Your task to perform on an android device: install app "Google Calendar" Image 0: 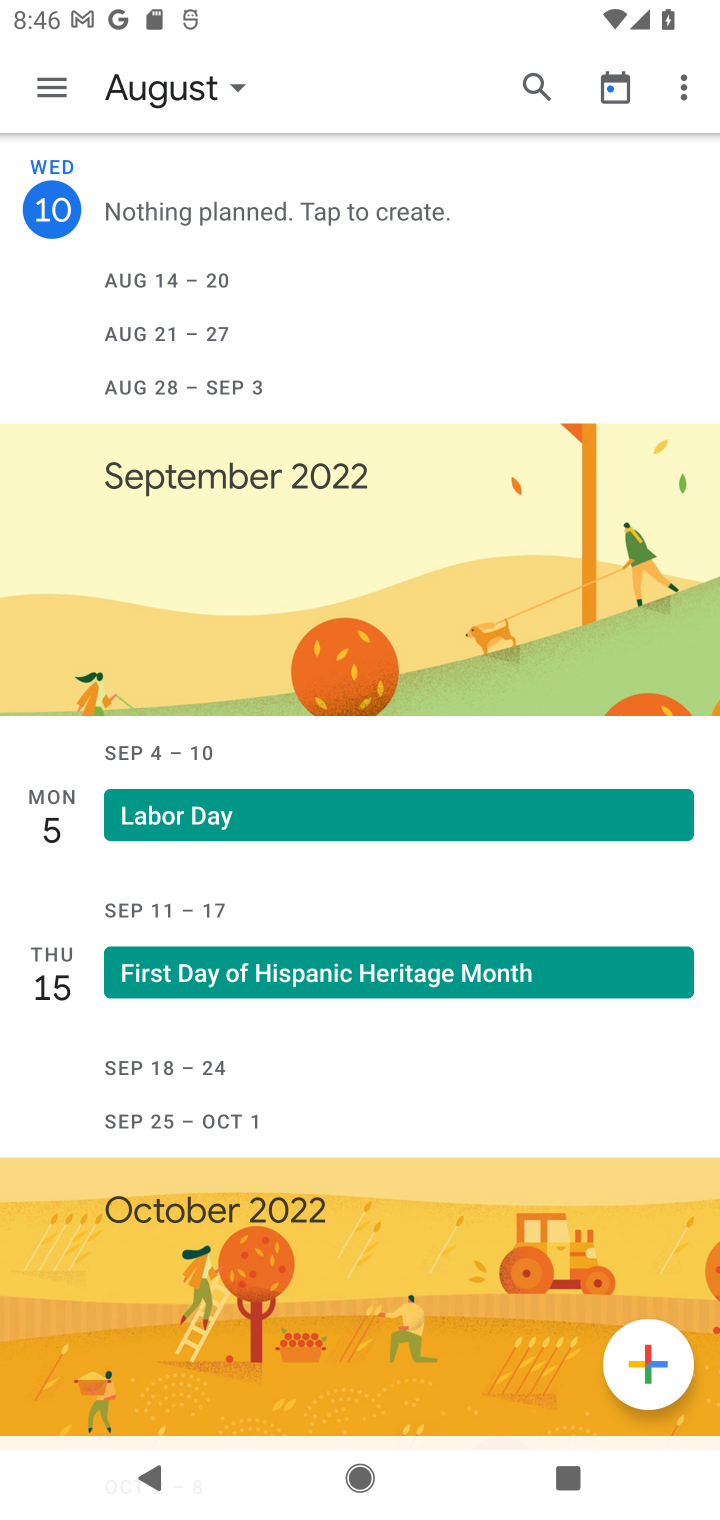
Step 0: press home button
Your task to perform on an android device: install app "Google Calendar" Image 1: 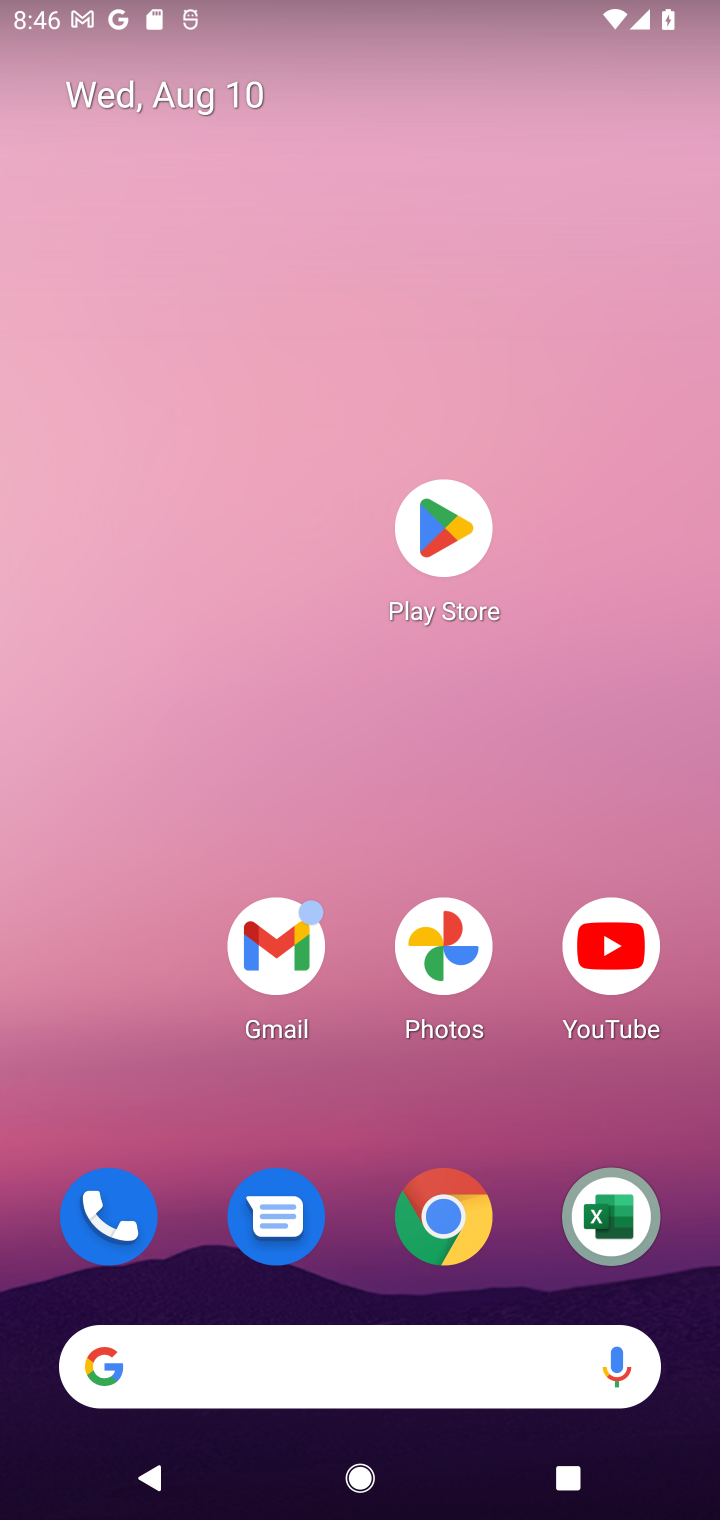
Step 1: click (439, 535)
Your task to perform on an android device: install app "Google Calendar" Image 2: 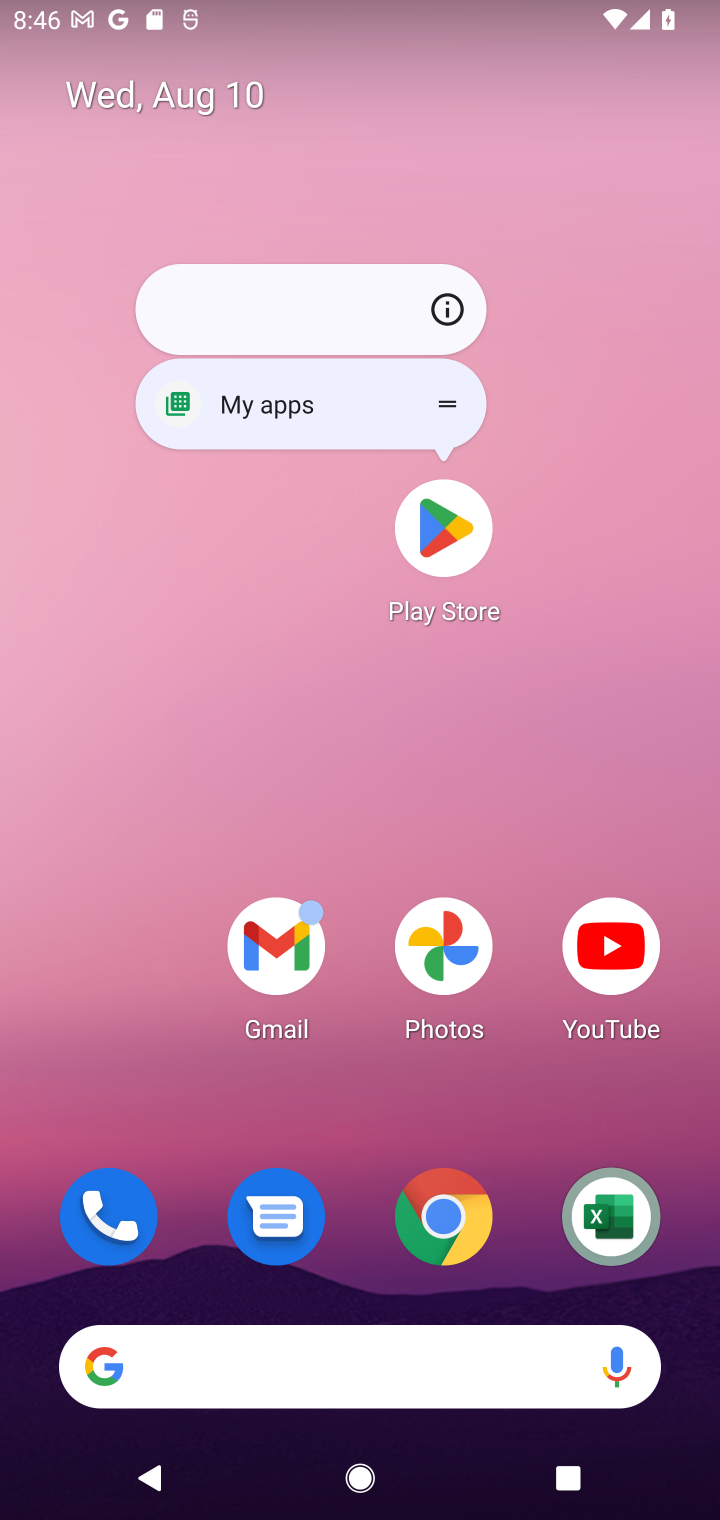
Step 2: click (439, 537)
Your task to perform on an android device: install app "Google Calendar" Image 3: 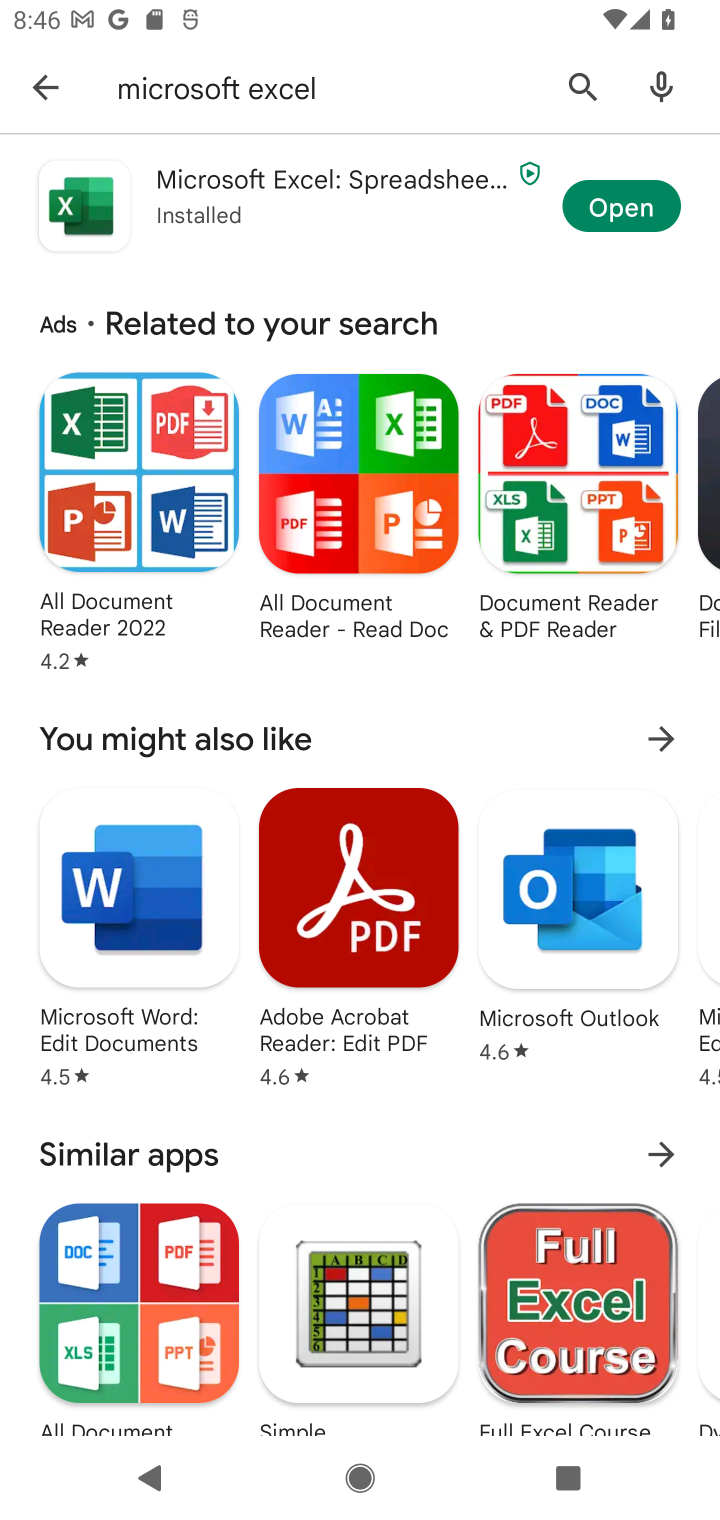
Step 3: click (570, 86)
Your task to perform on an android device: install app "Google Calendar" Image 4: 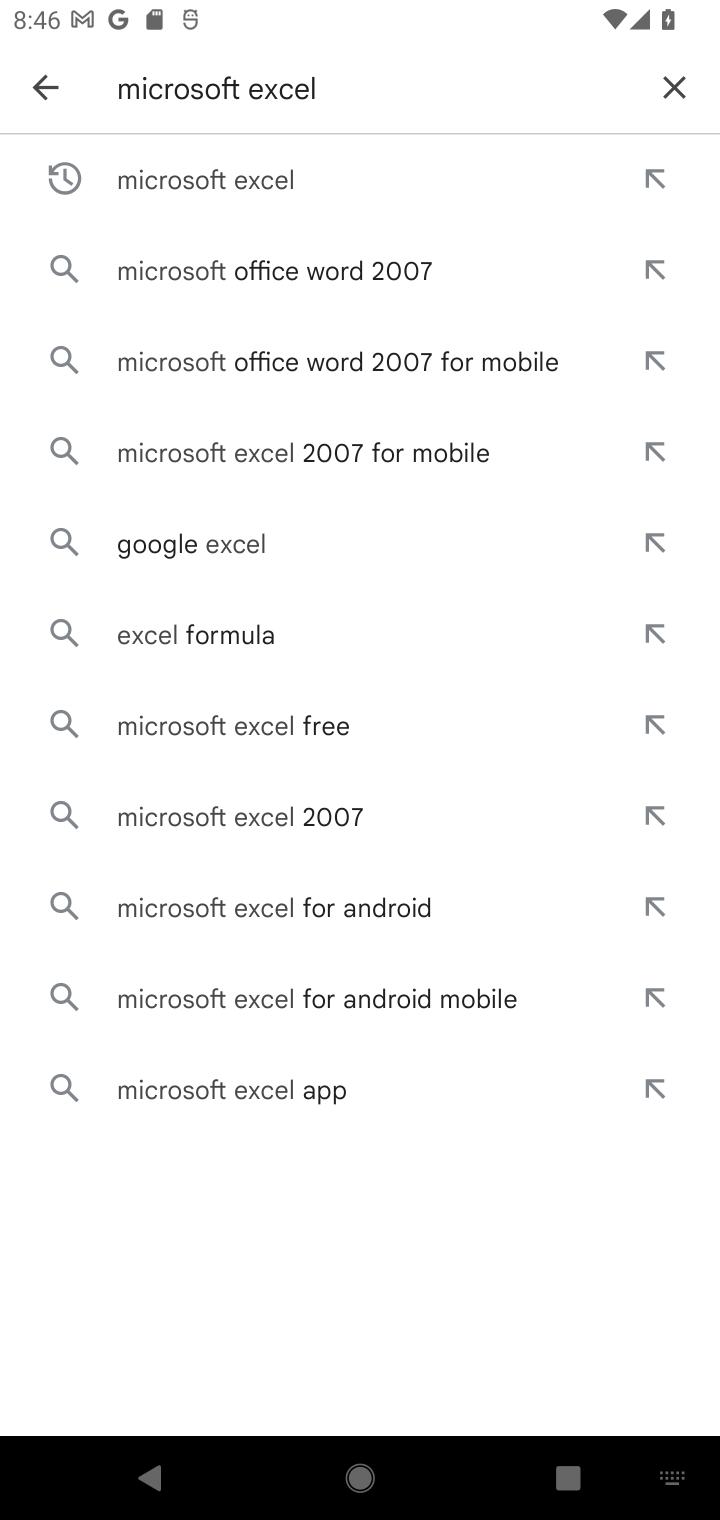
Step 4: click (670, 57)
Your task to perform on an android device: install app "Google Calendar" Image 5: 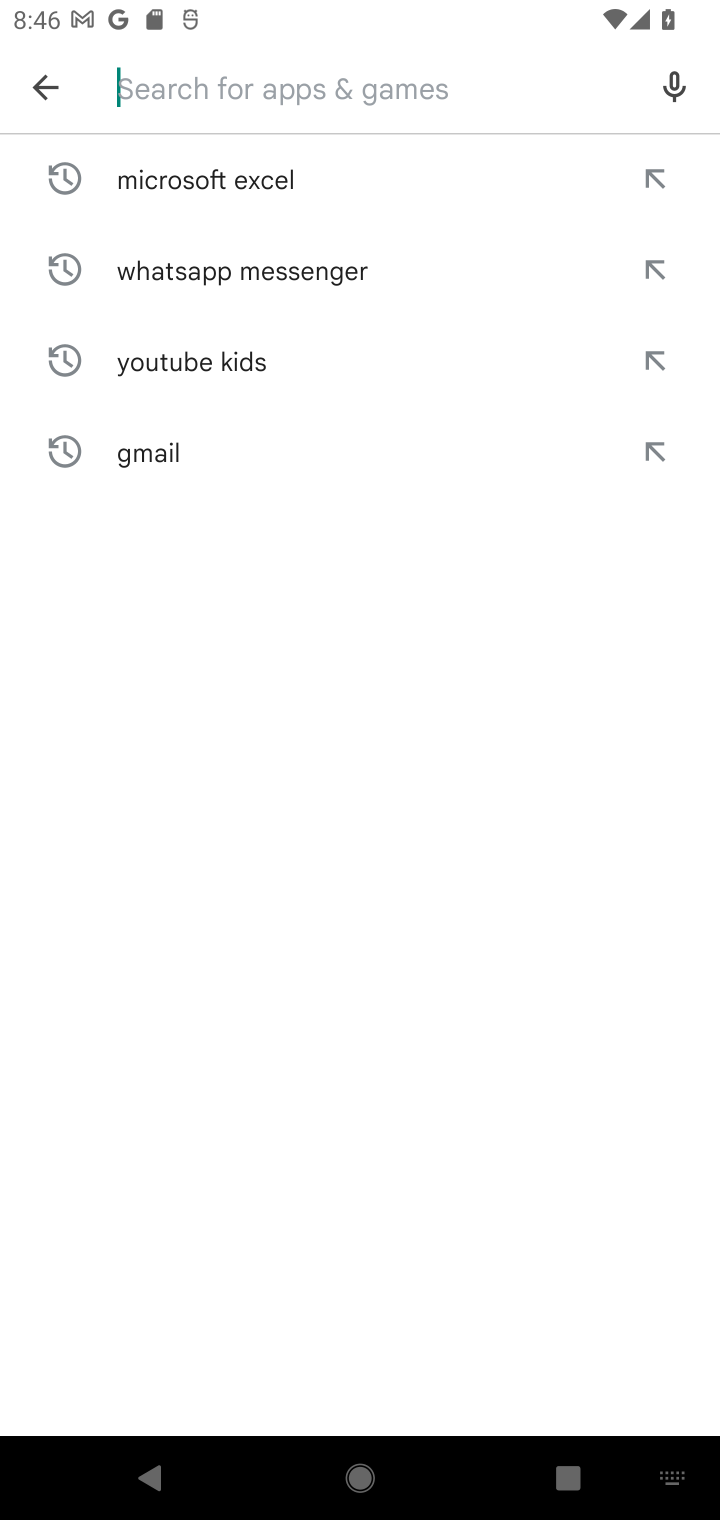
Step 5: type "Google Calendar"
Your task to perform on an android device: install app "Google Calendar" Image 6: 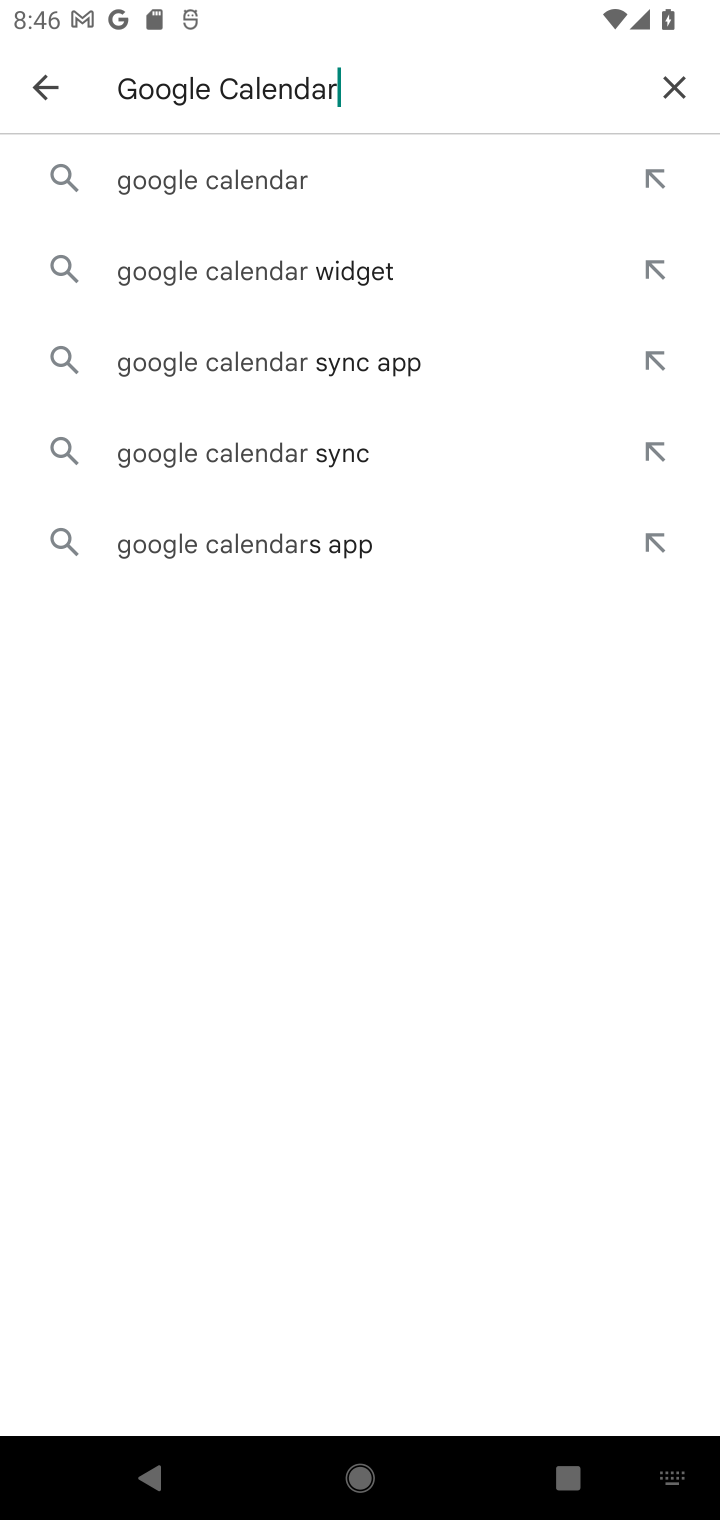
Step 6: click (252, 187)
Your task to perform on an android device: install app "Google Calendar" Image 7: 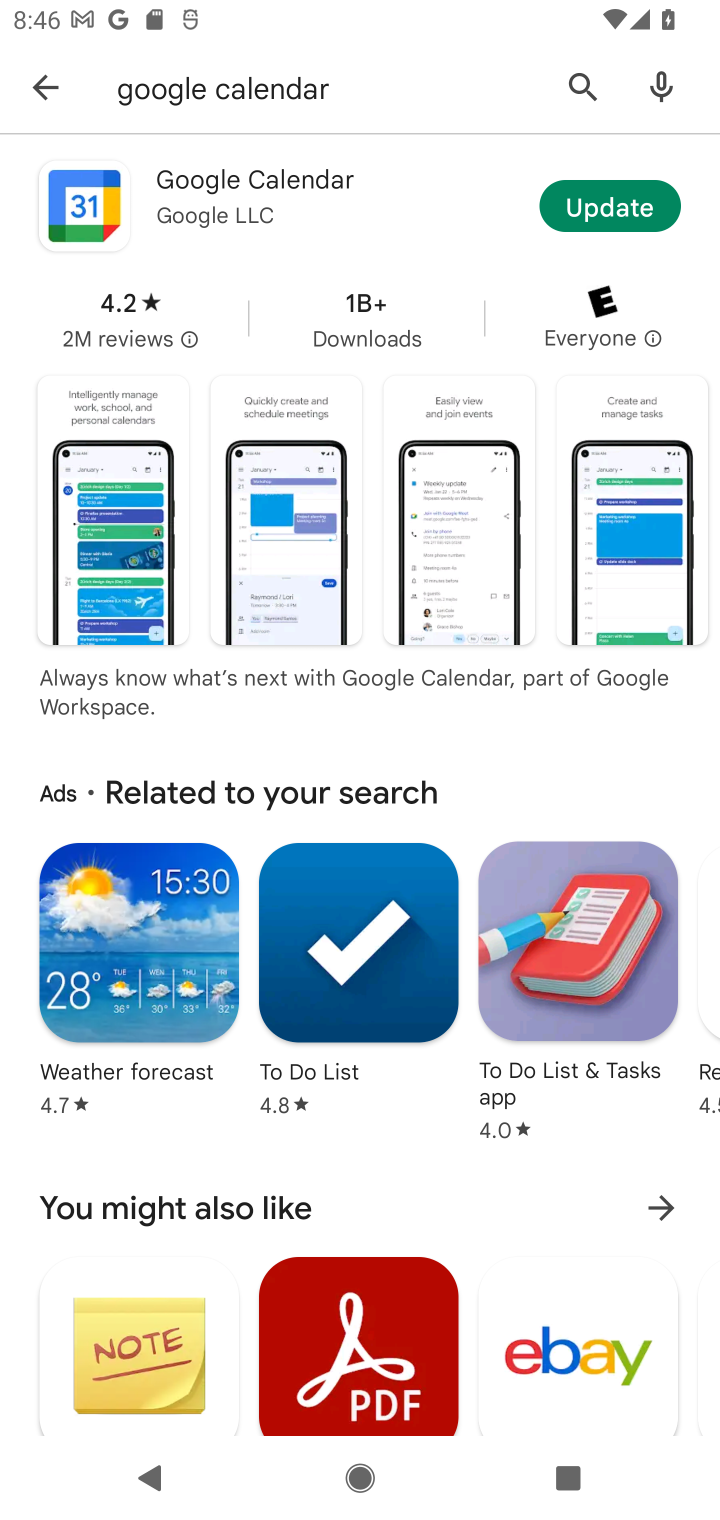
Step 7: click (219, 216)
Your task to perform on an android device: install app "Google Calendar" Image 8: 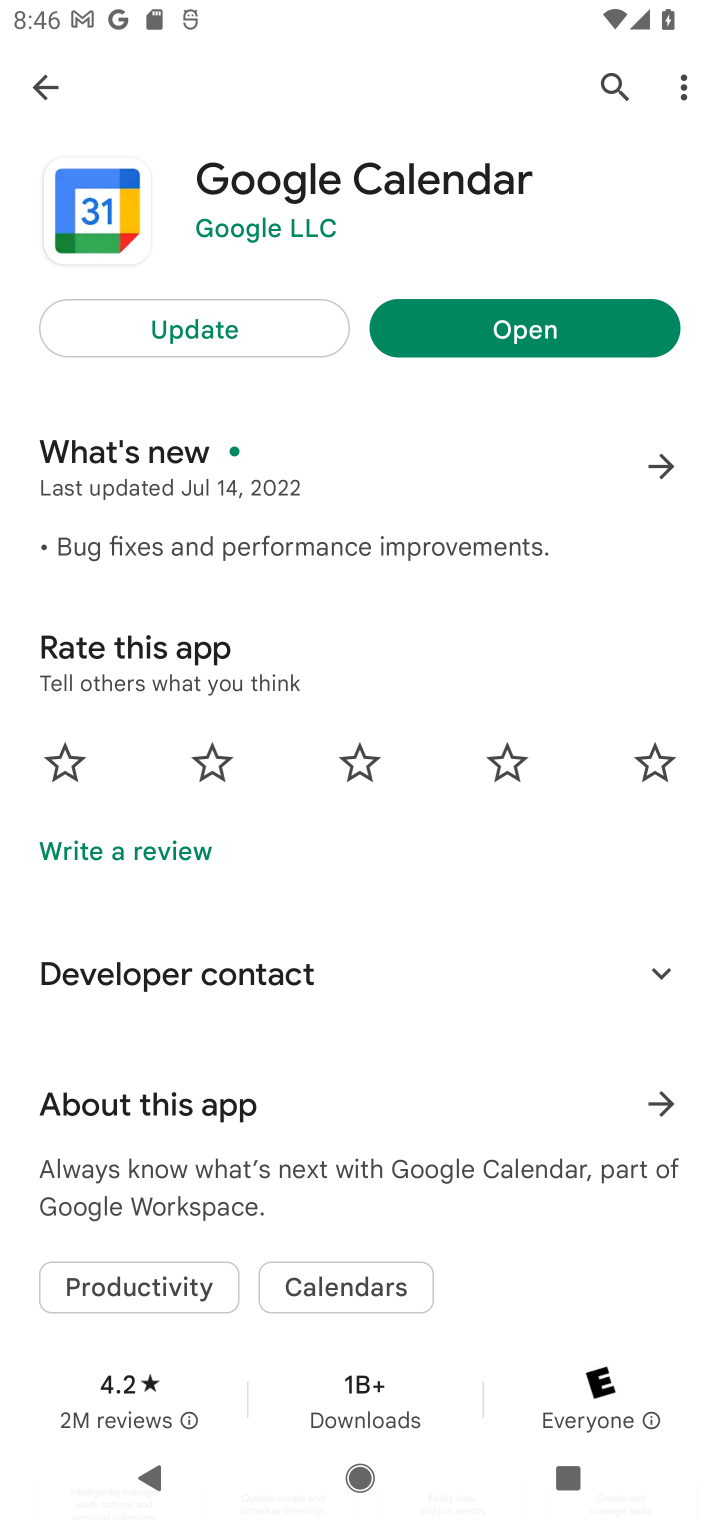
Step 8: task complete